Your task to perform on an android device: Is it going to rain today? Image 0: 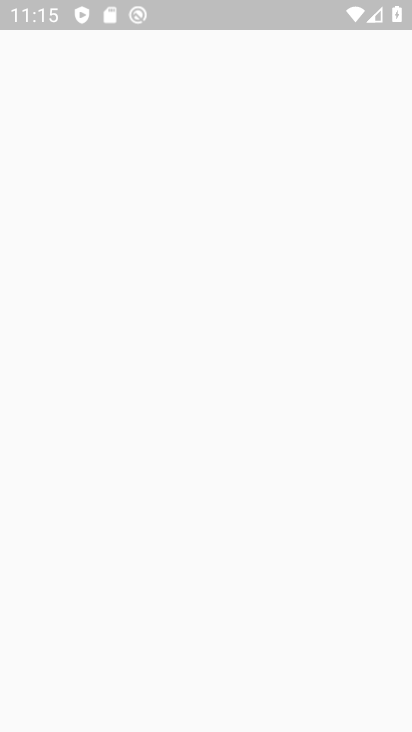
Step 0: press home button
Your task to perform on an android device: Is it going to rain today? Image 1: 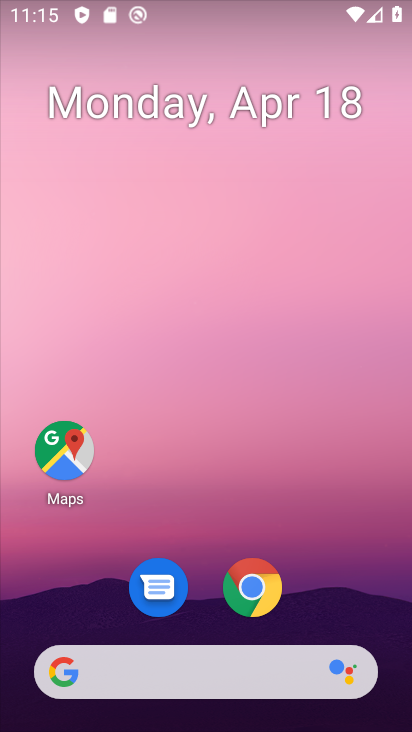
Step 1: drag from (334, 542) to (355, 63)
Your task to perform on an android device: Is it going to rain today? Image 2: 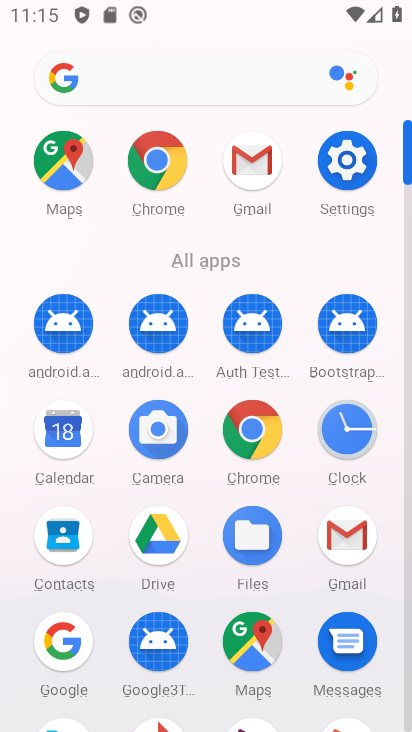
Step 2: drag from (300, 275) to (324, 3)
Your task to perform on an android device: Is it going to rain today? Image 3: 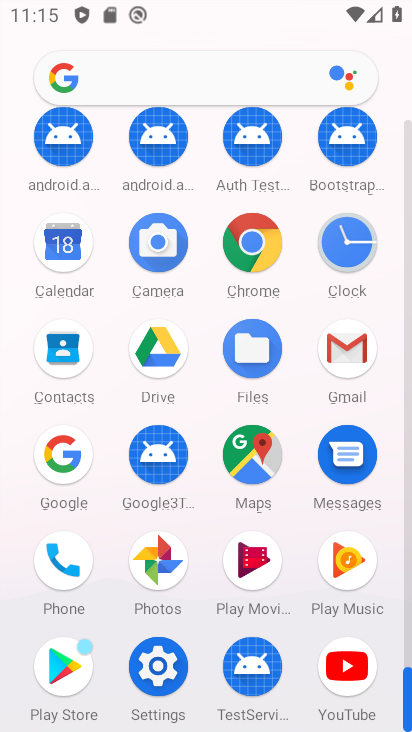
Step 3: click (248, 260)
Your task to perform on an android device: Is it going to rain today? Image 4: 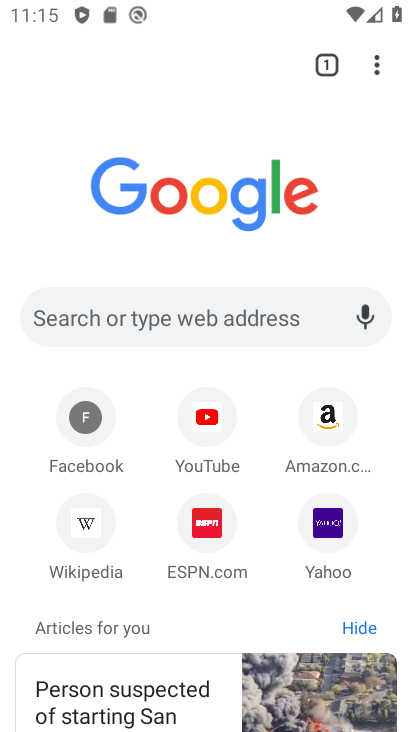
Step 4: click (257, 315)
Your task to perform on an android device: Is it going to rain today? Image 5: 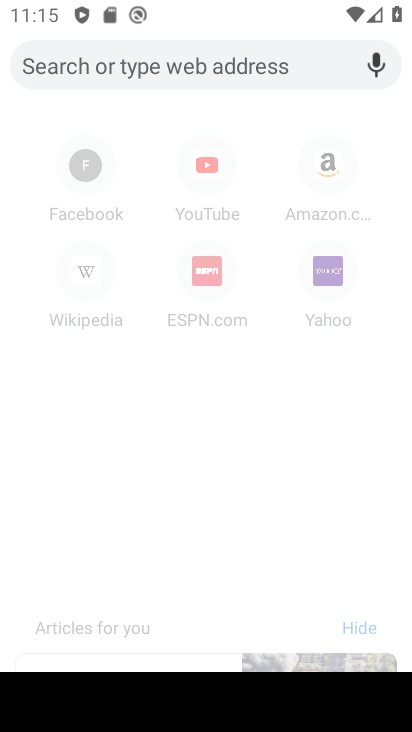
Step 5: type "Is it going to rain today?"
Your task to perform on an android device: Is it going to rain today? Image 6: 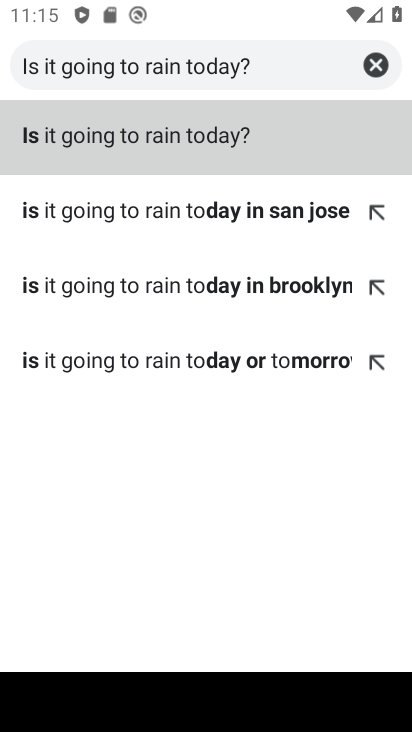
Step 6: click (137, 127)
Your task to perform on an android device: Is it going to rain today? Image 7: 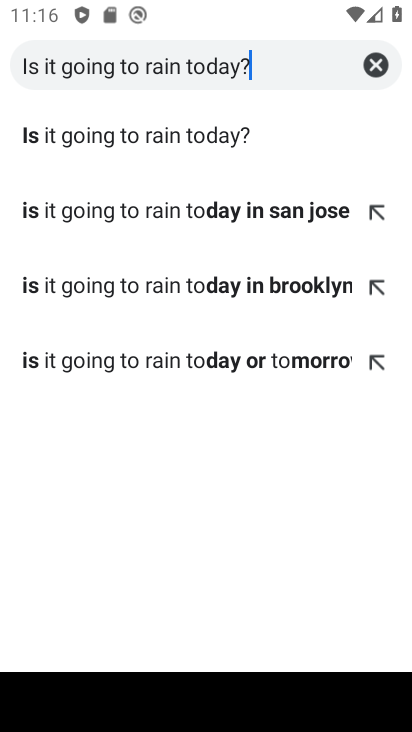
Step 7: click (164, 131)
Your task to perform on an android device: Is it going to rain today? Image 8: 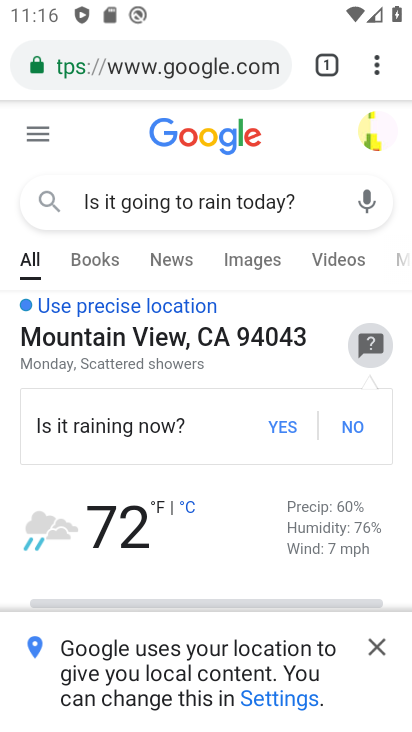
Step 8: task complete